Your task to perform on an android device: move a message to another label in the gmail app Image 0: 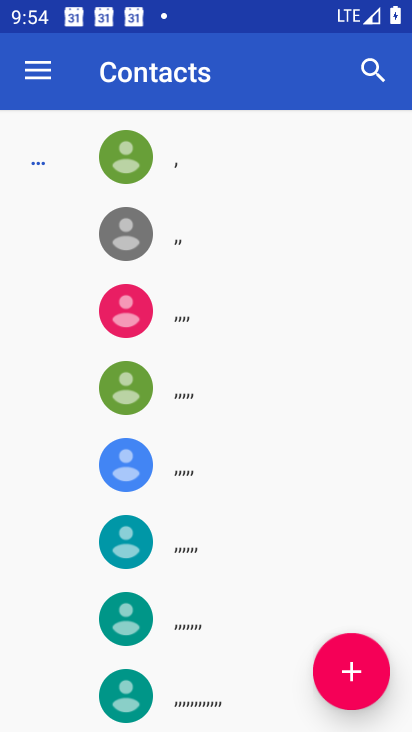
Step 0: press home button
Your task to perform on an android device: move a message to another label in the gmail app Image 1: 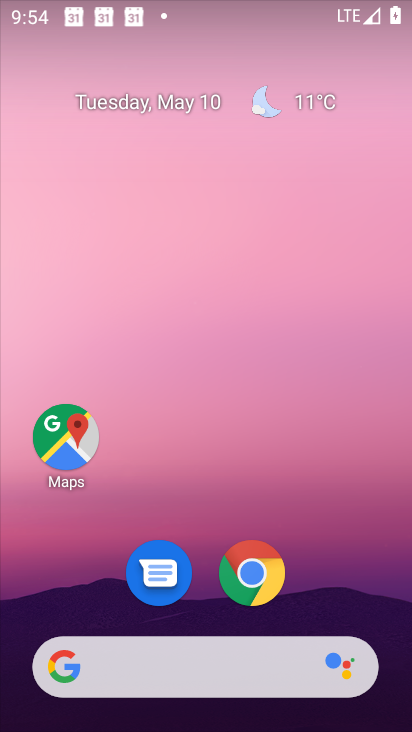
Step 1: drag from (348, 555) to (364, 171)
Your task to perform on an android device: move a message to another label in the gmail app Image 2: 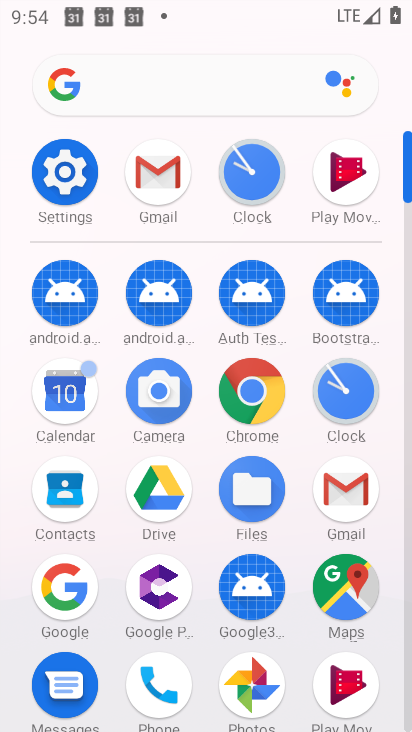
Step 2: click (327, 503)
Your task to perform on an android device: move a message to another label in the gmail app Image 3: 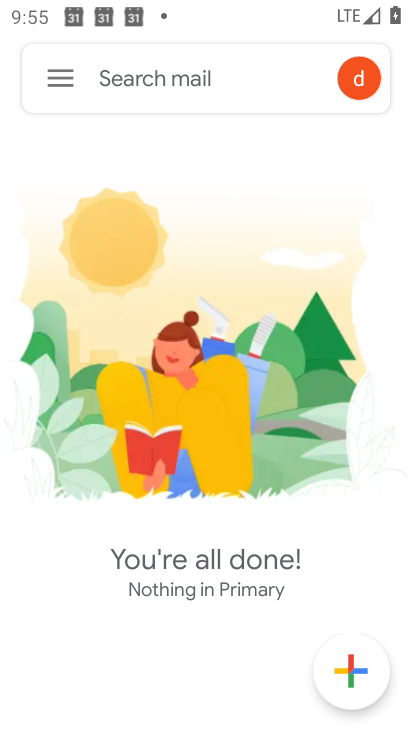
Step 3: click (67, 85)
Your task to perform on an android device: move a message to another label in the gmail app Image 4: 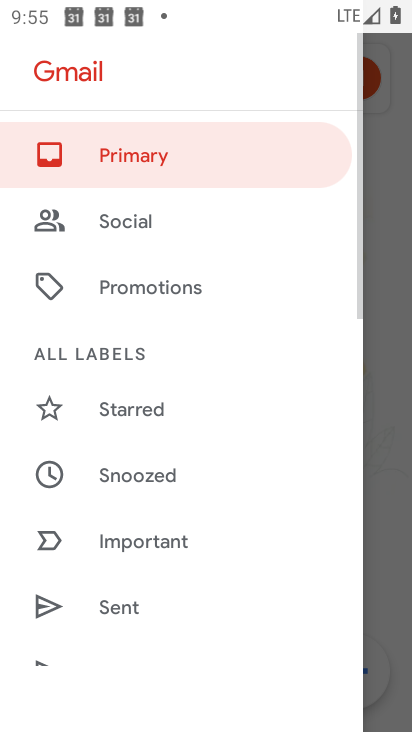
Step 4: click (149, 210)
Your task to perform on an android device: move a message to another label in the gmail app Image 5: 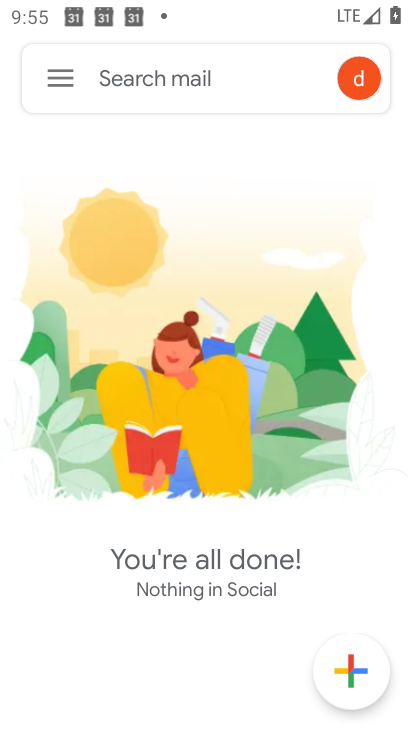
Step 5: task complete